Your task to perform on an android device: Go to Wikipedia Image 0: 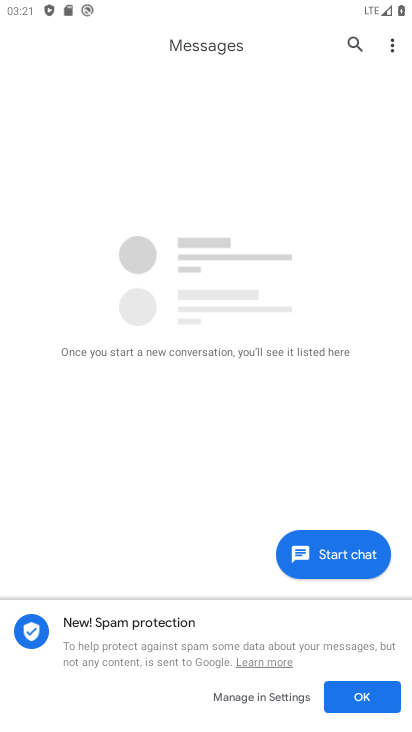
Step 0: press home button
Your task to perform on an android device: Go to Wikipedia Image 1: 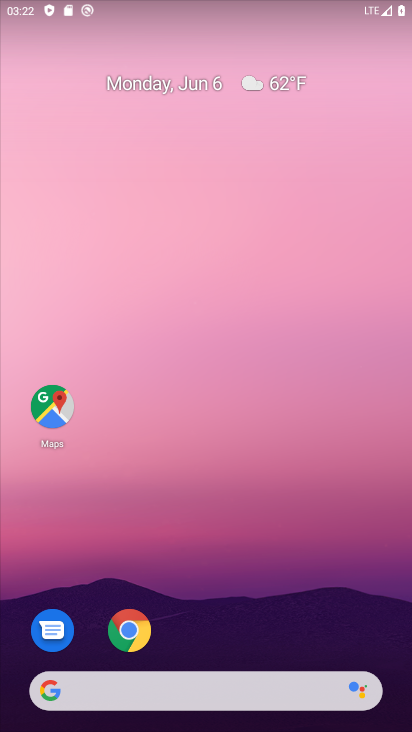
Step 1: click (119, 628)
Your task to perform on an android device: Go to Wikipedia Image 2: 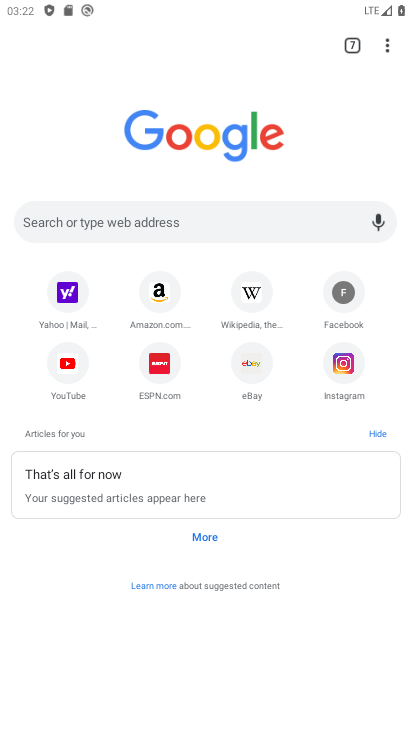
Step 2: click (246, 304)
Your task to perform on an android device: Go to Wikipedia Image 3: 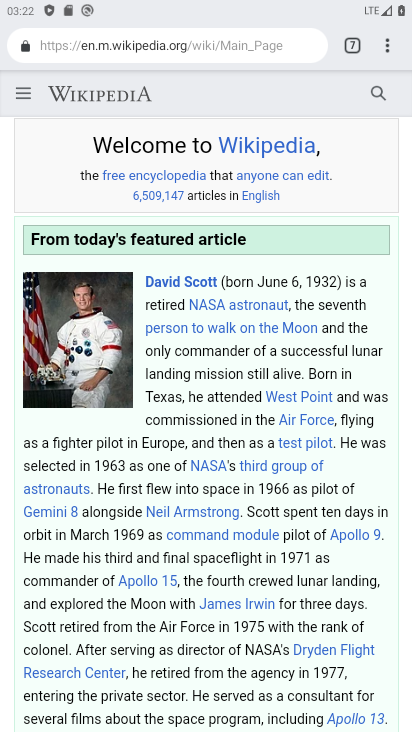
Step 3: task complete